Your task to perform on an android device: Open settings Image 0: 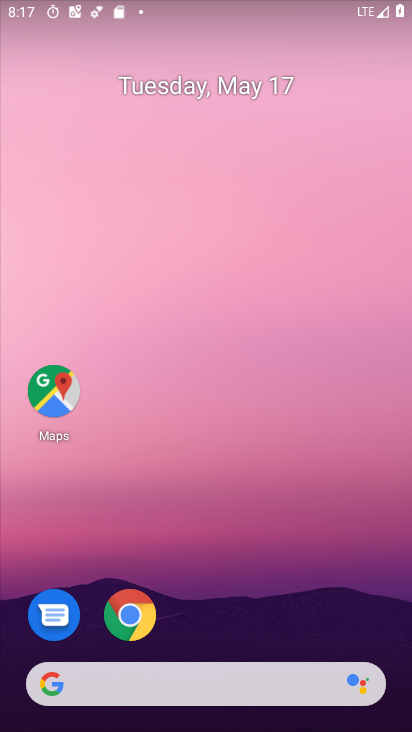
Step 0: drag from (249, 628) to (272, 243)
Your task to perform on an android device: Open settings Image 1: 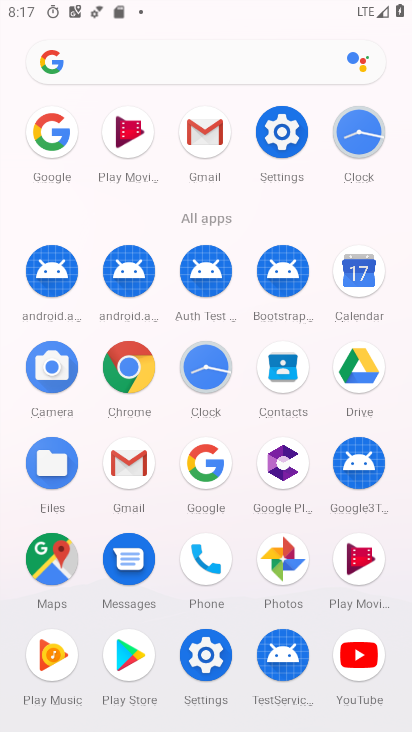
Step 1: click (278, 131)
Your task to perform on an android device: Open settings Image 2: 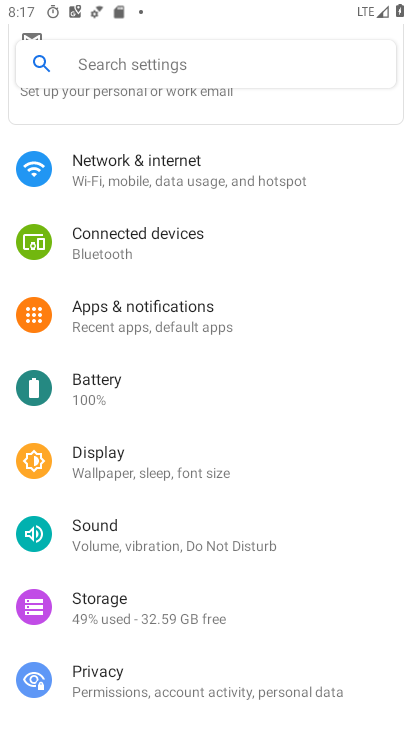
Step 2: task complete